Your task to perform on an android device: What is the news today? Image 0: 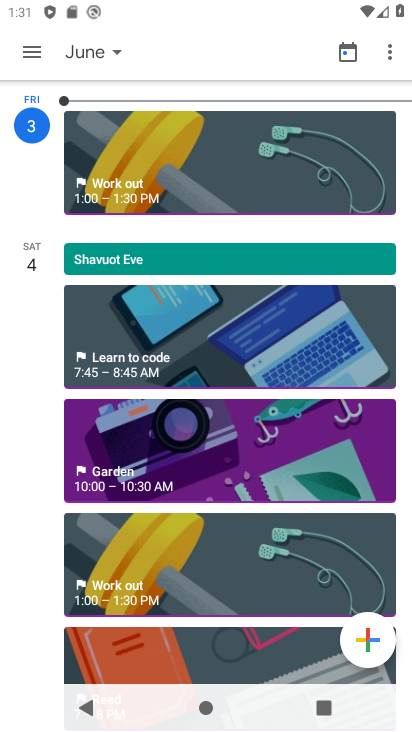
Step 0: press back button
Your task to perform on an android device: What is the news today? Image 1: 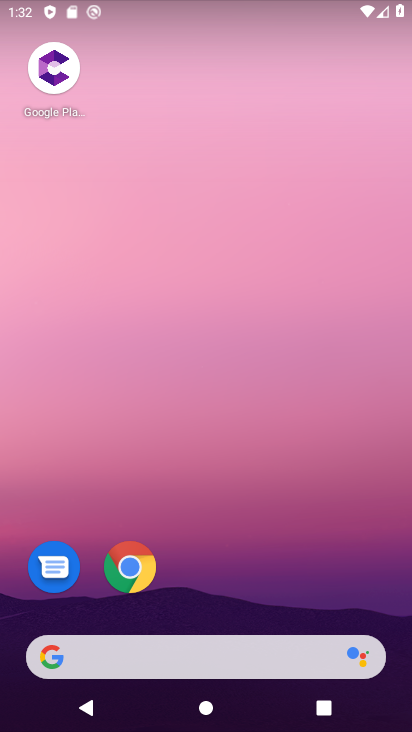
Step 1: click (146, 653)
Your task to perform on an android device: What is the news today? Image 2: 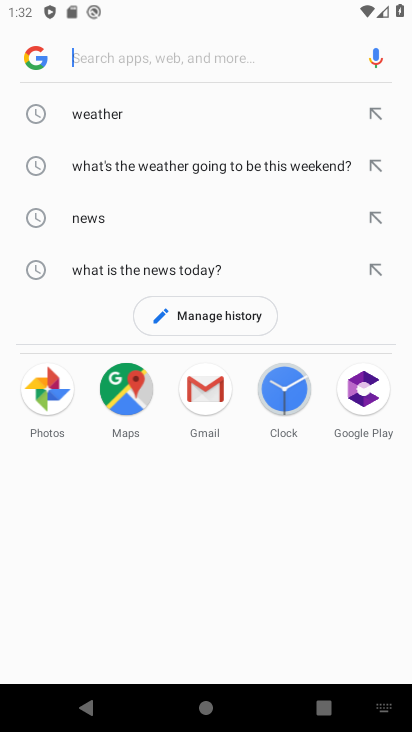
Step 2: click (101, 270)
Your task to perform on an android device: What is the news today? Image 3: 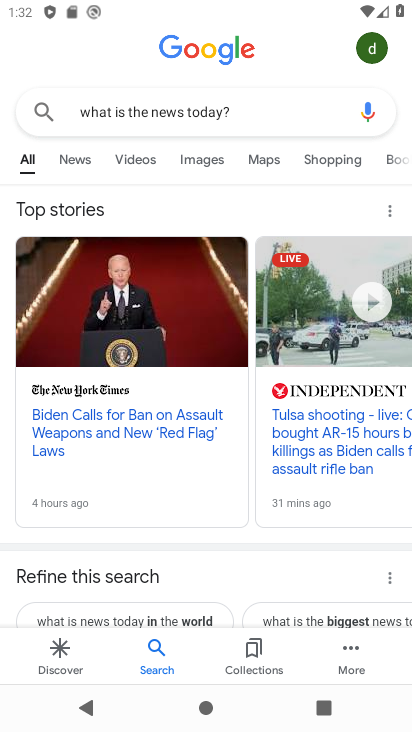
Step 3: click (250, 110)
Your task to perform on an android device: What is the news today? Image 4: 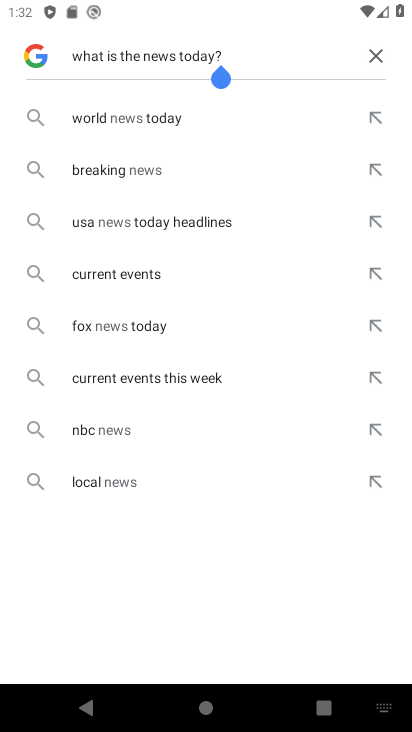
Step 4: click (255, 58)
Your task to perform on an android device: What is the news today? Image 5: 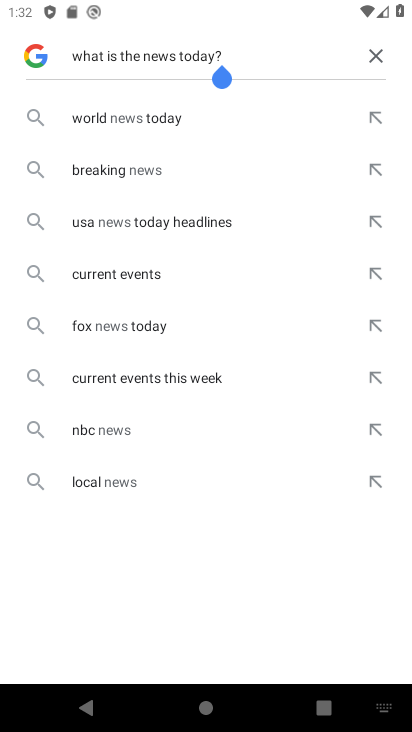
Step 5: drag from (240, 51) to (85, 51)
Your task to perform on an android device: What is the news today? Image 6: 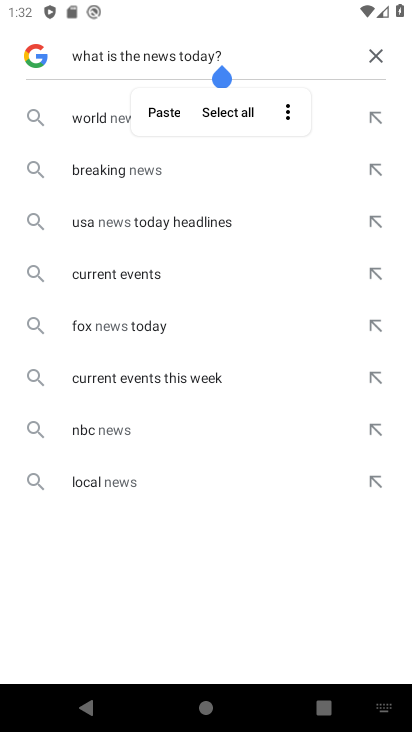
Step 6: click (293, 52)
Your task to perform on an android device: What is the news today? Image 7: 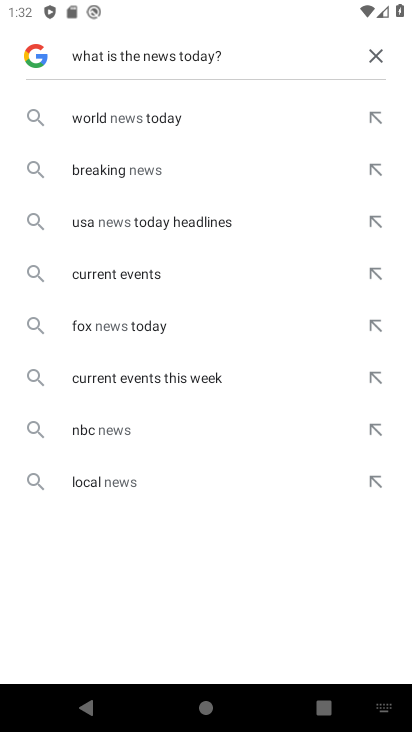
Step 7: click (361, 50)
Your task to perform on an android device: What is the news today? Image 8: 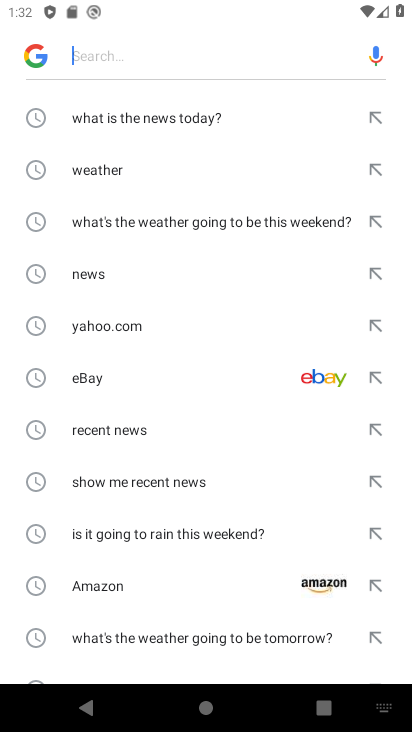
Step 8: click (132, 118)
Your task to perform on an android device: What is the news today? Image 9: 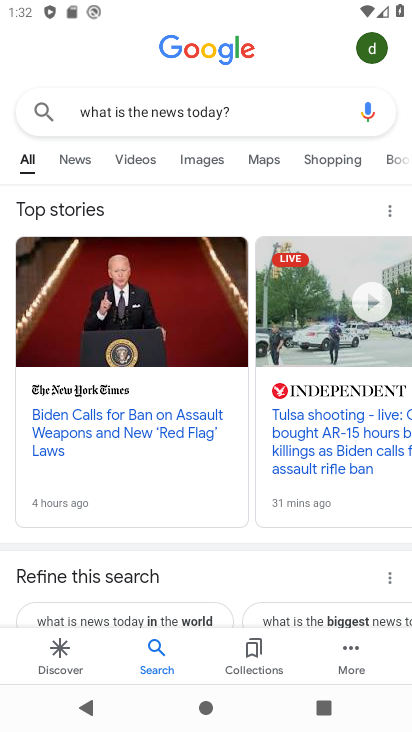
Step 9: task complete